Your task to perform on an android device: Go to privacy settings Image 0: 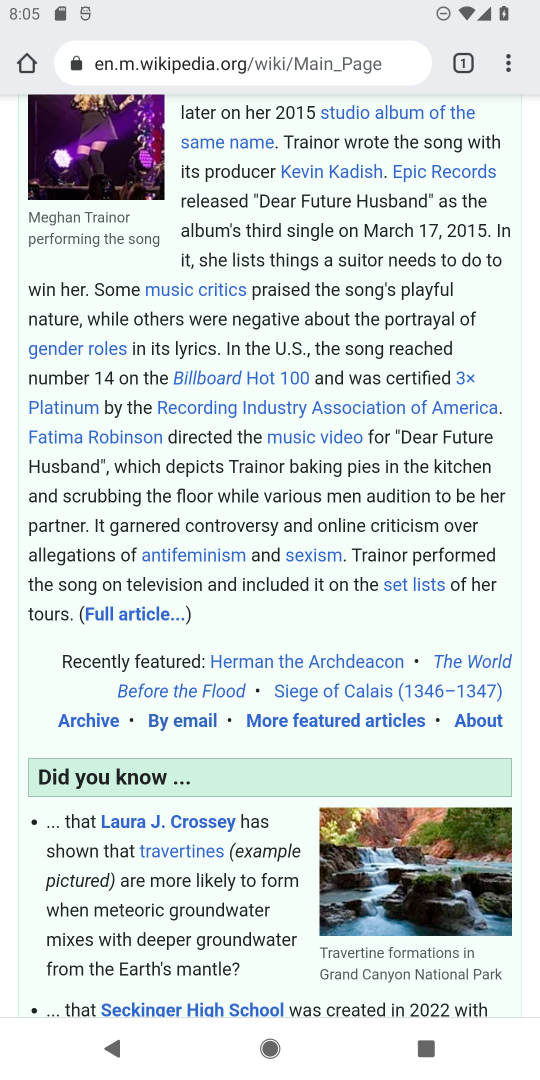
Step 0: press home button
Your task to perform on an android device: Go to privacy settings Image 1: 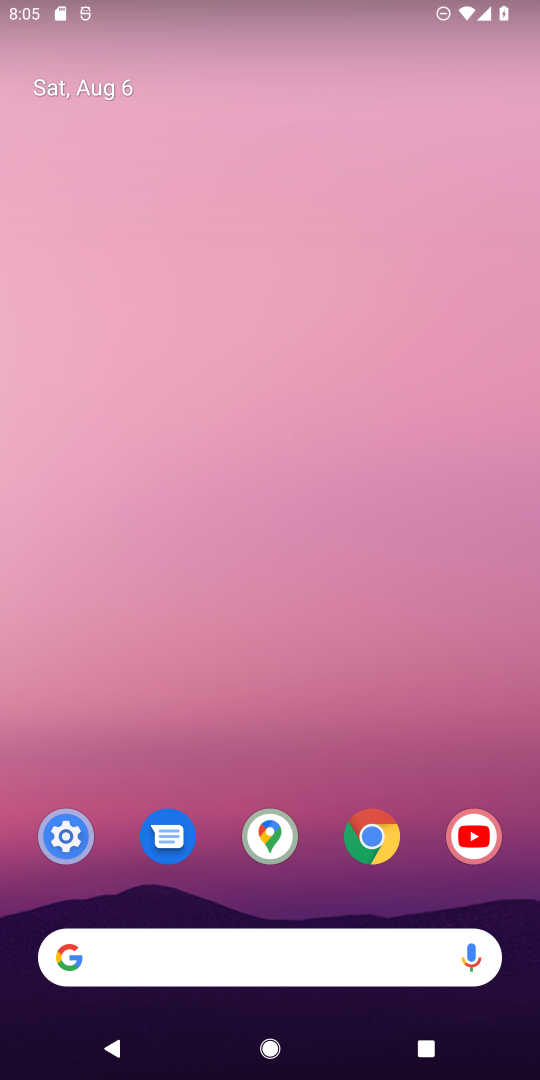
Step 1: drag from (256, 887) to (285, 329)
Your task to perform on an android device: Go to privacy settings Image 2: 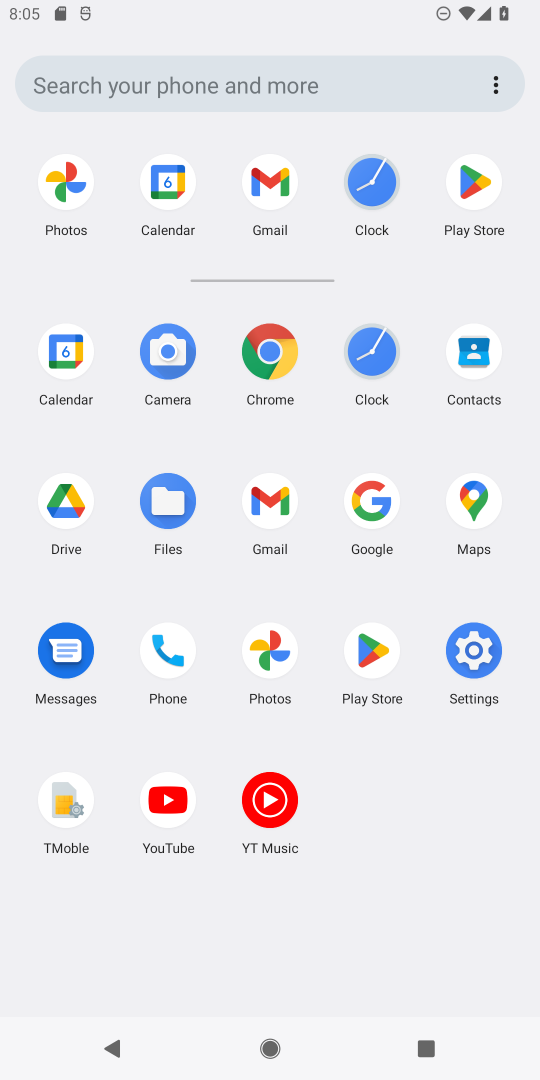
Step 2: click (495, 644)
Your task to perform on an android device: Go to privacy settings Image 3: 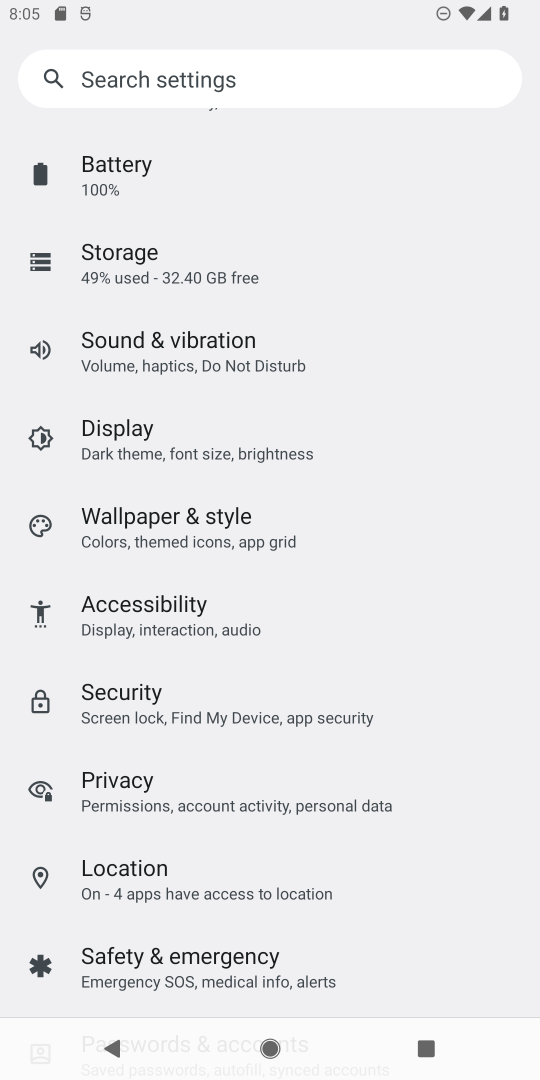
Step 3: click (104, 813)
Your task to perform on an android device: Go to privacy settings Image 4: 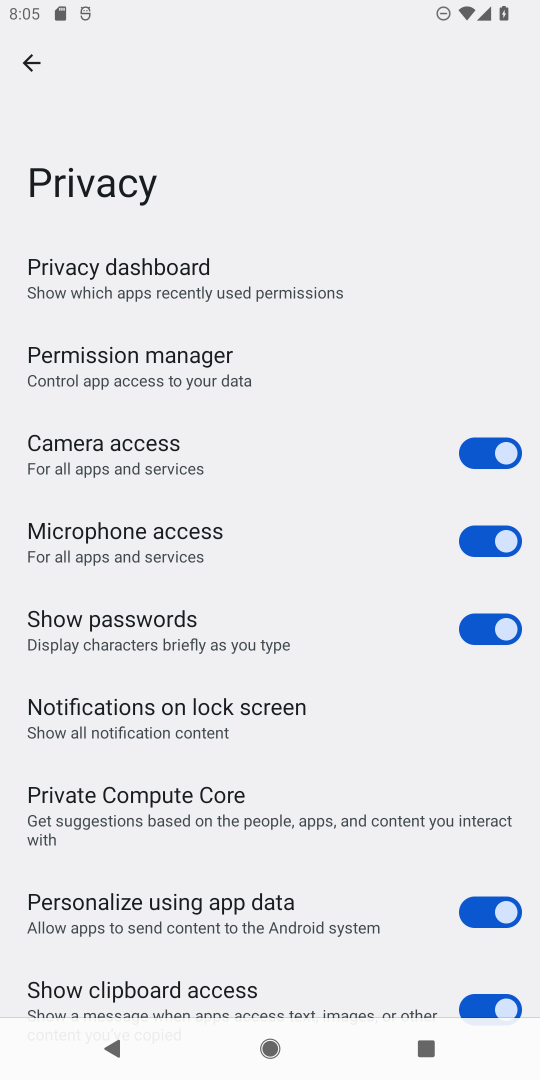
Step 4: task complete